Your task to perform on an android device: turn on sleep mode Image 0: 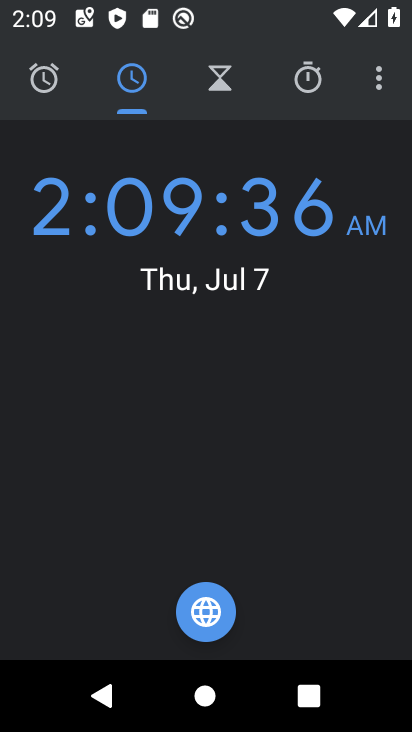
Step 0: press home button
Your task to perform on an android device: turn on sleep mode Image 1: 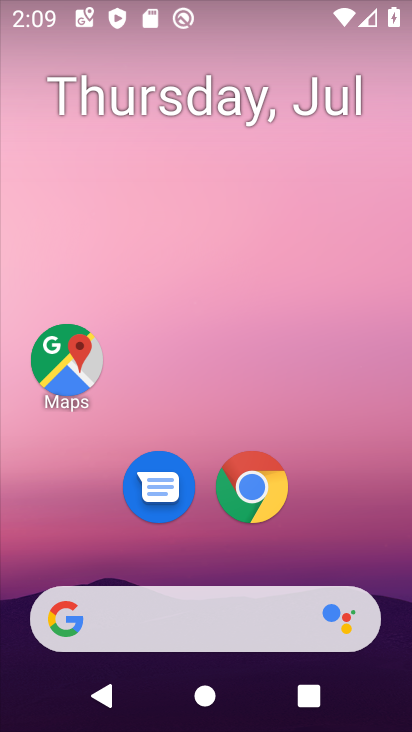
Step 1: drag from (369, 544) to (348, 260)
Your task to perform on an android device: turn on sleep mode Image 2: 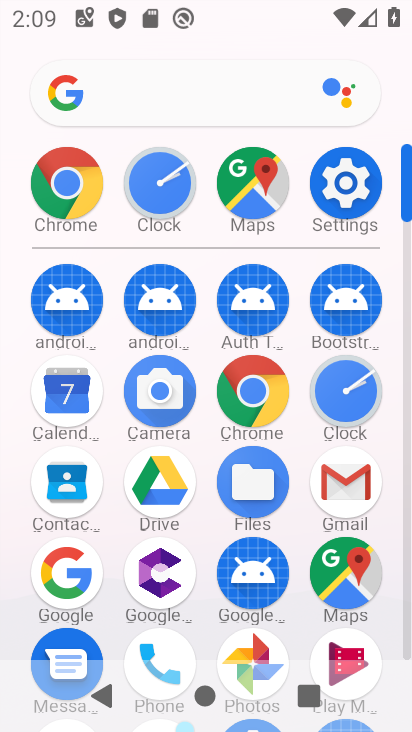
Step 2: click (359, 197)
Your task to perform on an android device: turn on sleep mode Image 3: 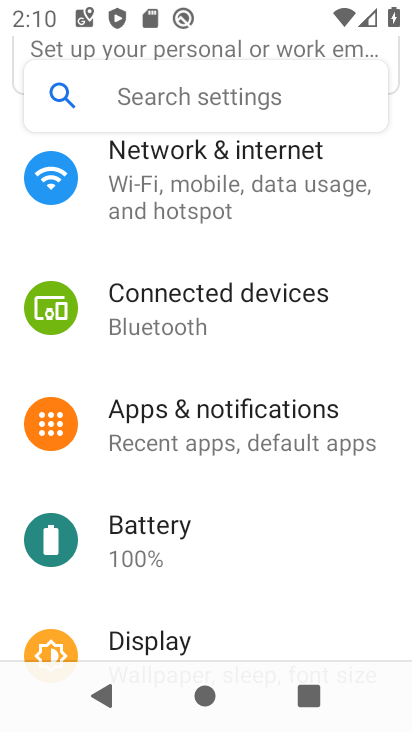
Step 3: drag from (347, 541) to (343, 400)
Your task to perform on an android device: turn on sleep mode Image 4: 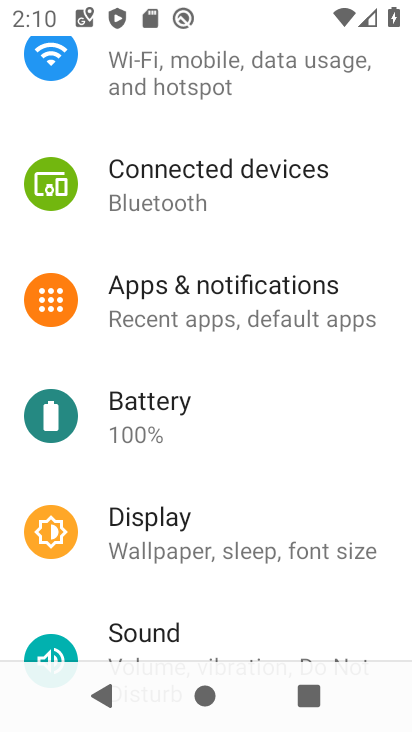
Step 4: click (333, 543)
Your task to perform on an android device: turn on sleep mode Image 5: 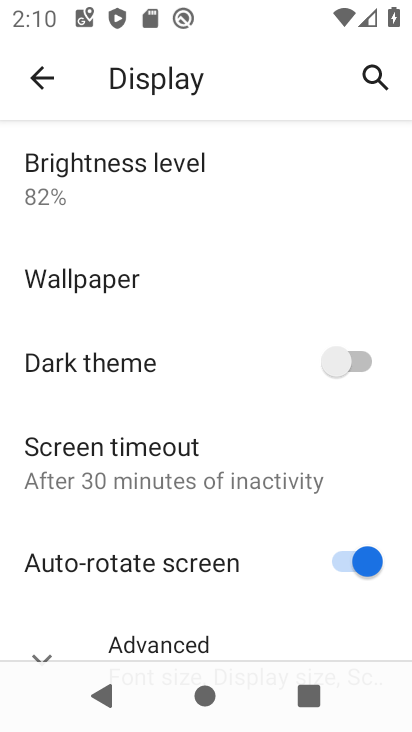
Step 5: drag from (295, 625) to (277, 494)
Your task to perform on an android device: turn on sleep mode Image 6: 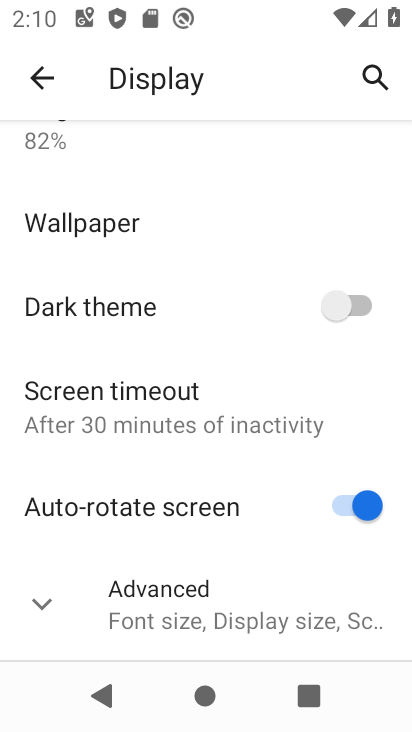
Step 6: click (220, 596)
Your task to perform on an android device: turn on sleep mode Image 7: 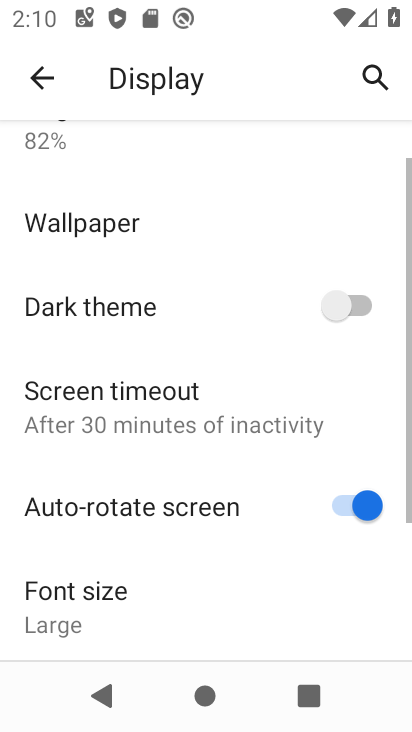
Step 7: task complete